Your task to perform on an android device: Search for vegetarian restaurants on Maps Image 0: 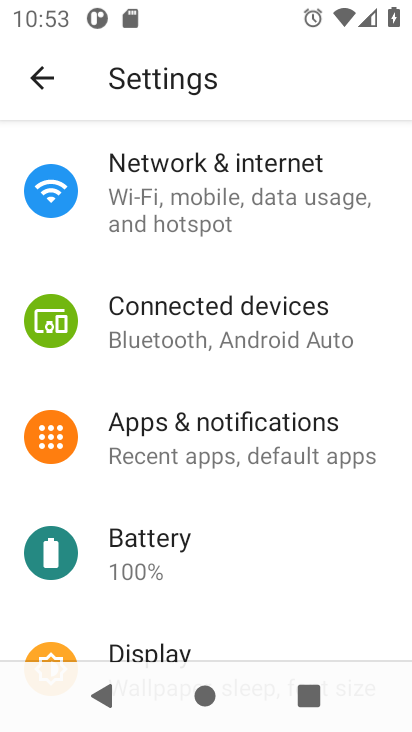
Step 0: press home button
Your task to perform on an android device: Search for vegetarian restaurants on Maps Image 1: 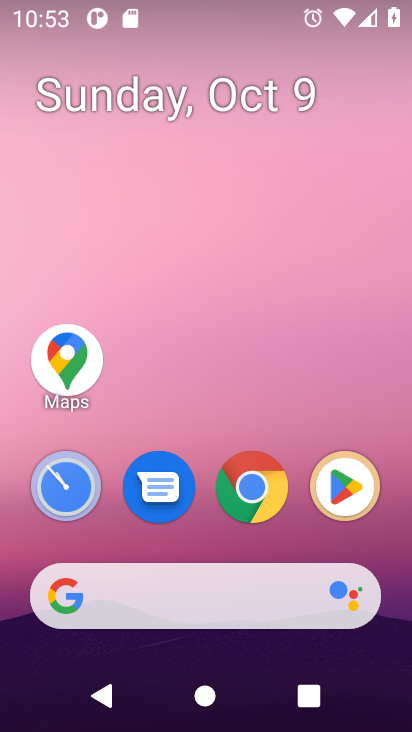
Step 1: drag from (215, 531) to (221, 55)
Your task to perform on an android device: Search for vegetarian restaurants on Maps Image 2: 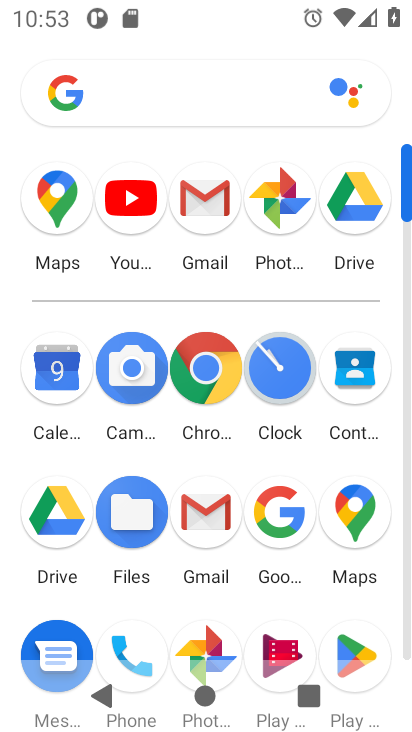
Step 2: click (350, 513)
Your task to perform on an android device: Search for vegetarian restaurants on Maps Image 3: 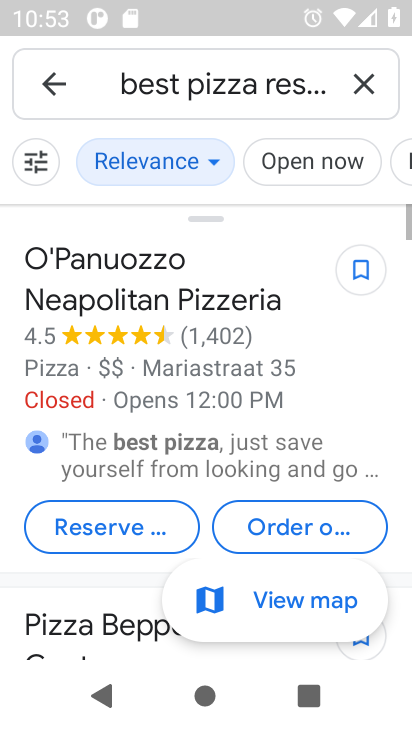
Step 3: click (363, 81)
Your task to perform on an android device: Search for vegetarian restaurants on Maps Image 4: 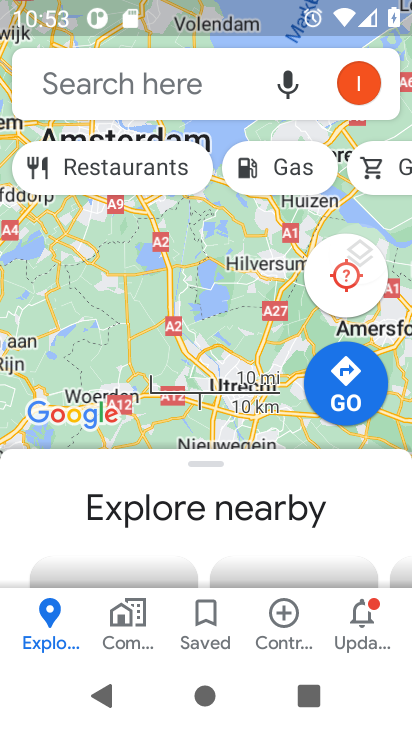
Step 4: click (125, 86)
Your task to perform on an android device: Search for vegetarian restaurants on Maps Image 5: 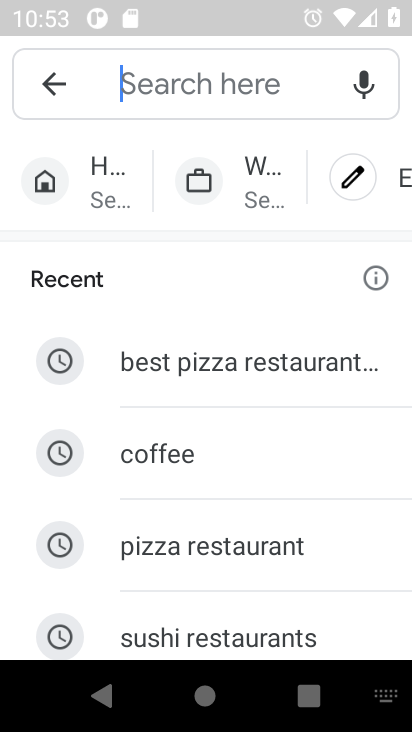
Step 5: type " vegetarian restaurants on Maps"
Your task to perform on an android device: Search for vegetarian restaurants on Maps Image 6: 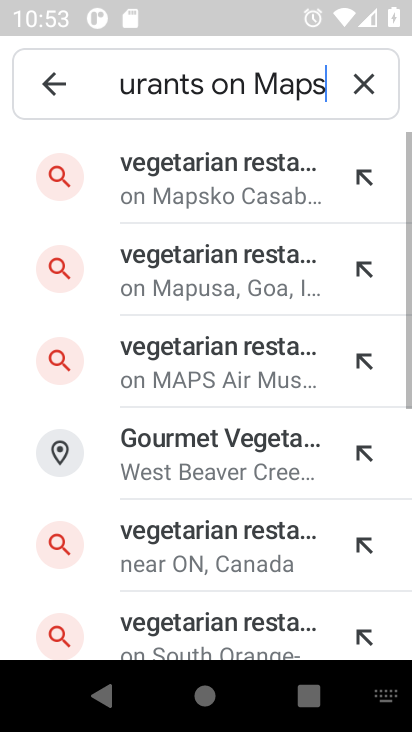
Step 6: type ""
Your task to perform on an android device: Search for vegetarian restaurants on Maps Image 7: 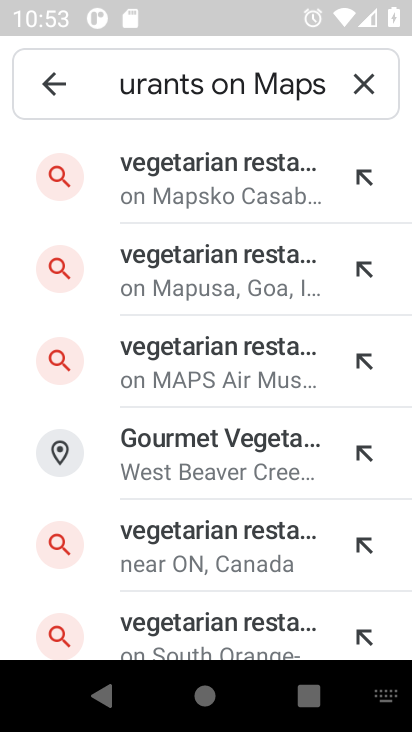
Step 7: click (216, 176)
Your task to perform on an android device: Search for vegetarian restaurants on Maps Image 8: 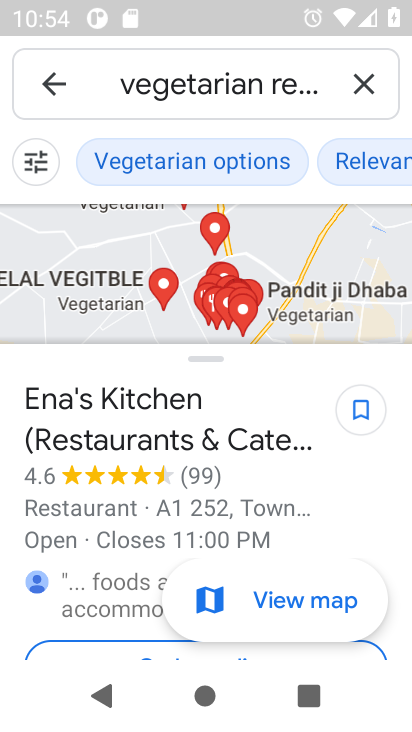
Step 8: task complete